Your task to perform on an android device: allow cookies in the chrome app Image 0: 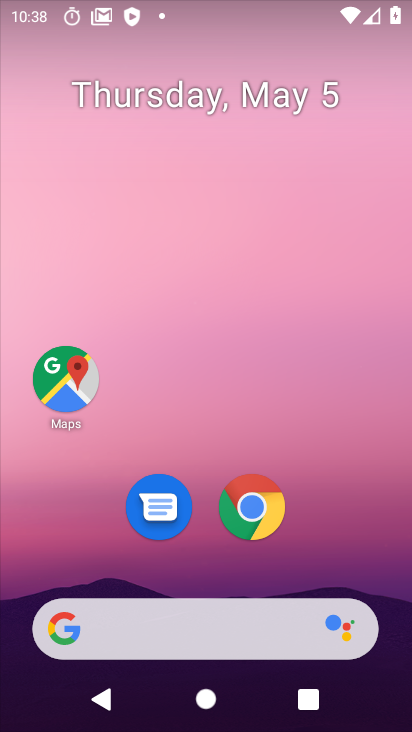
Step 0: click (249, 512)
Your task to perform on an android device: allow cookies in the chrome app Image 1: 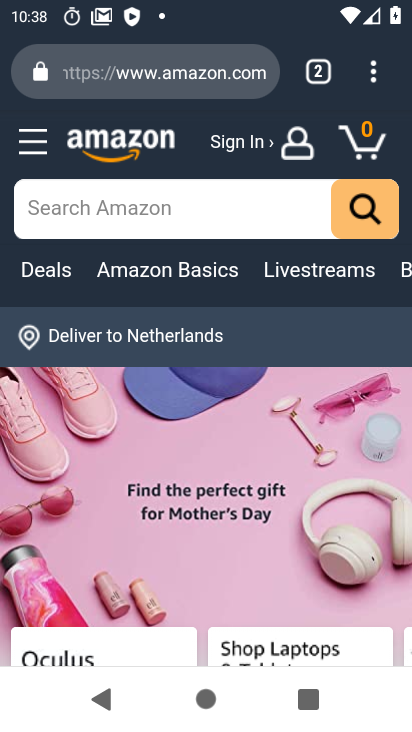
Step 1: drag from (373, 73) to (157, 509)
Your task to perform on an android device: allow cookies in the chrome app Image 2: 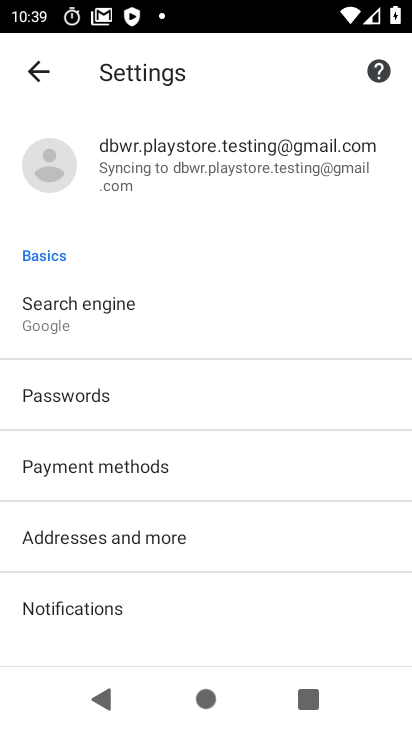
Step 2: drag from (250, 582) to (251, 224)
Your task to perform on an android device: allow cookies in the chrome app Image 3: 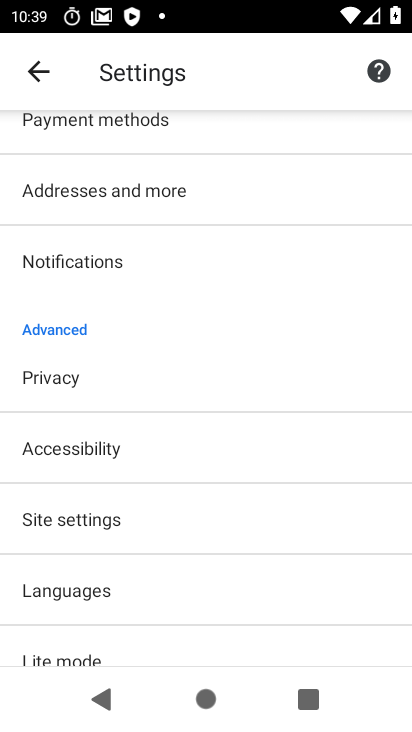
Step 3: click (76, 519)
Your task to perform on an android device: allow cookies in the chrome app Image 4: 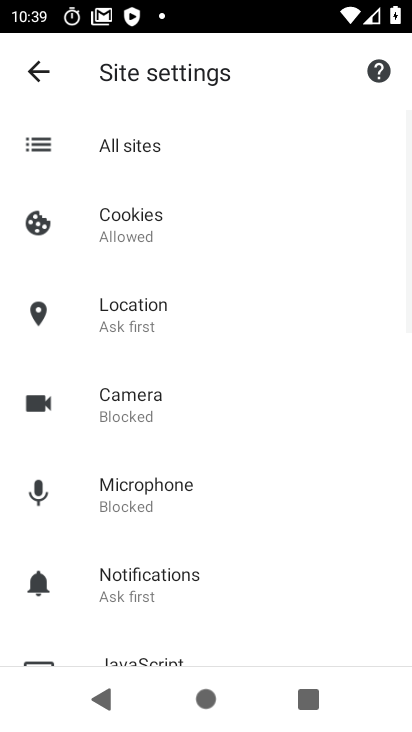
Step 4: click (118, 224)
Your task to perform on an android device: allow cookies in the chrome app Image 5: 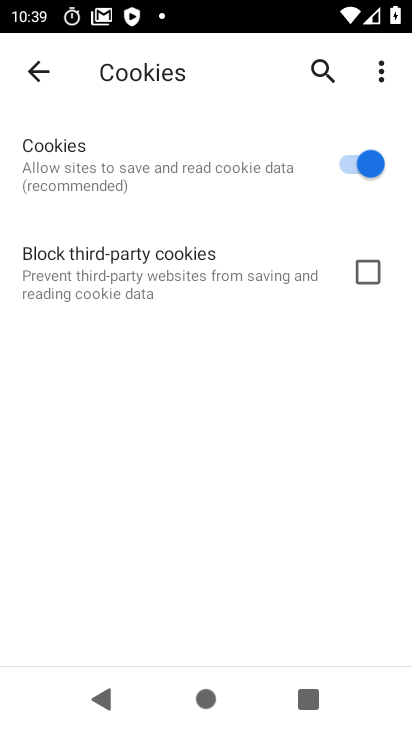
Step 5: task complete